Your task to perform on an android device: set an alarm Image 0: 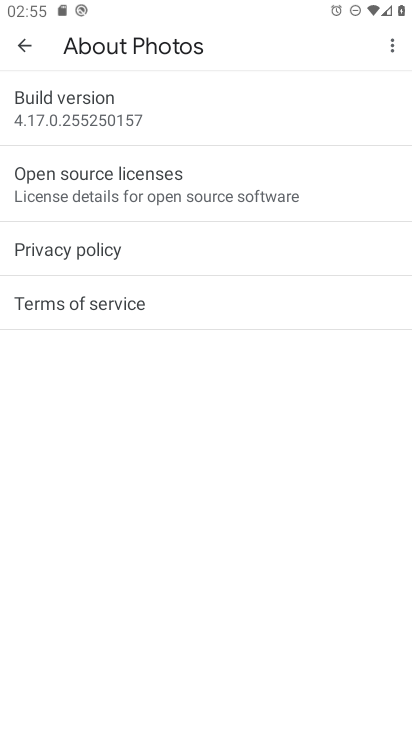
Step 0: press home button
Your task to perform on an android device: set an alarm Image 1: 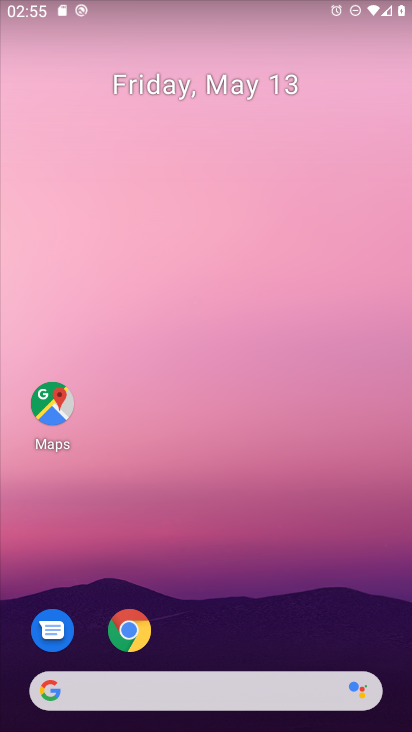
Step 1: drag from (275, 710) to (195, 193)
Your task to perform on an android device: set an alarm Image 2: 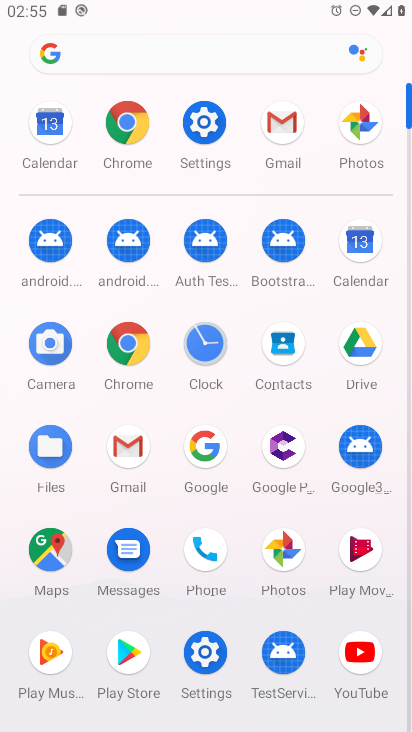
Step 2: click (204, 343)
Your task to perform on an android device: set an alarm Image 3: 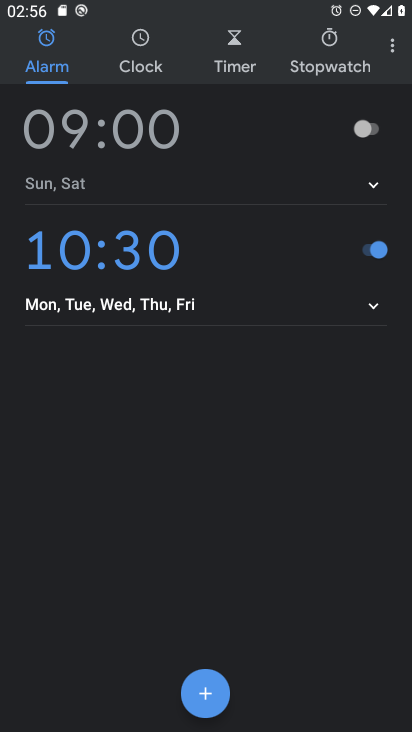
Step 3: click (176, 153)
Your task to perform on an android device: set an alarm Image 4: 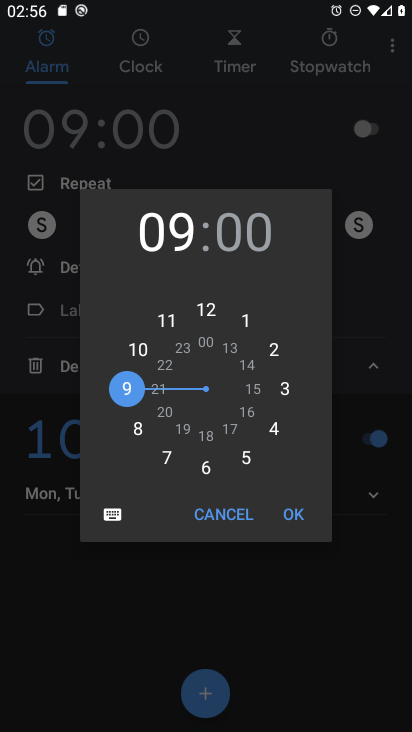
Step 4: click (220, 391)
Your task to perform on an android device: set an alarm Image 5: 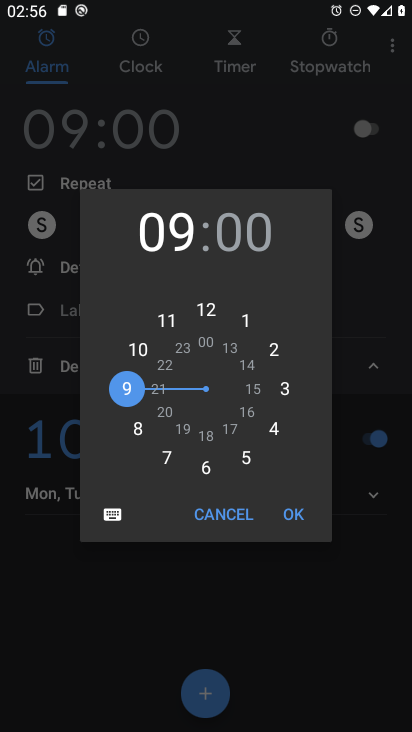
Step 5: click (258, 431)
Your task to perform on an android device: set an alarm Image 6: 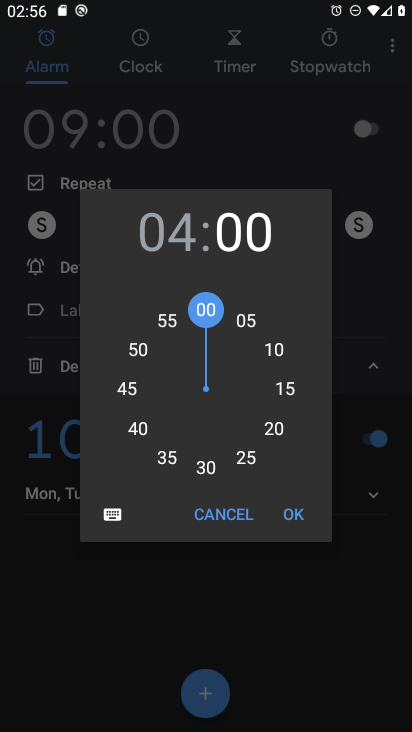
Step 6: click (292, 514)
Your task to perform on an android device: set an alarm Image 7: 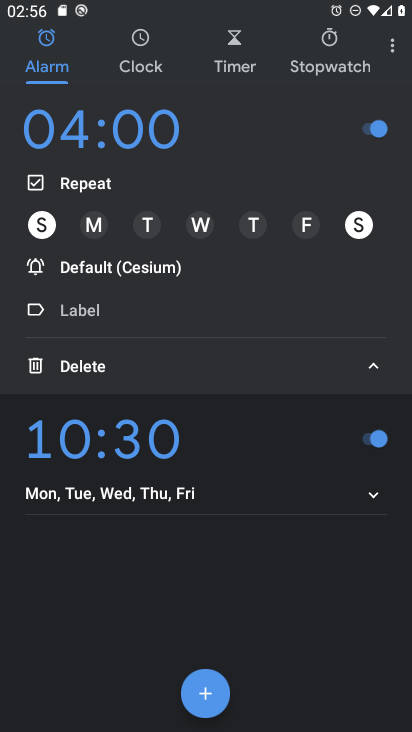
Step 7: task complete